Your task to perform on an android device: all mails in gmail Image 0: 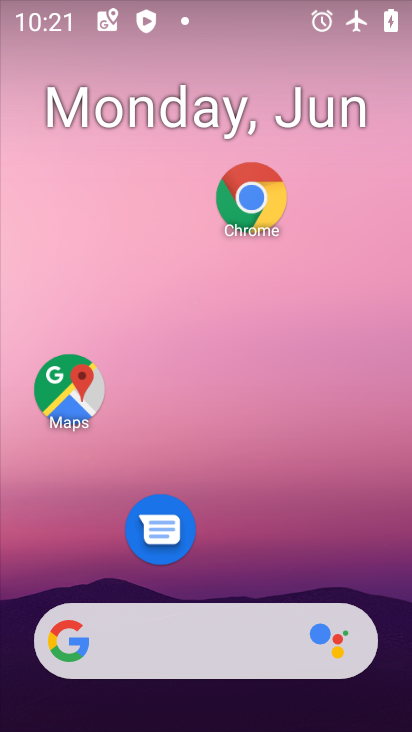
Step 0: drag from (230, 561) to (244, 92)
Your task to perform on an android device: all mails in gmail Image 1: 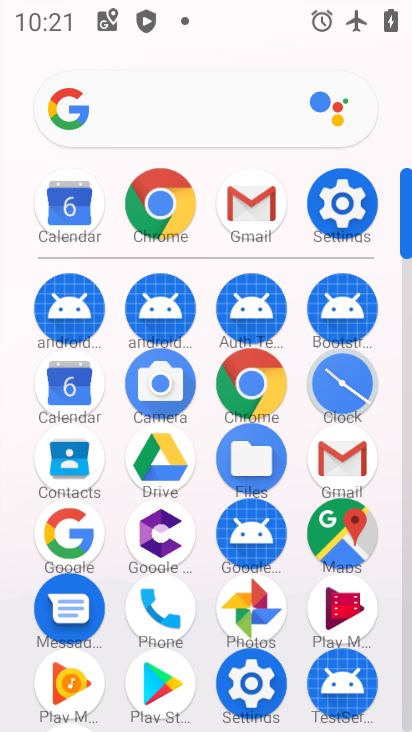
Step 1: click (248, 186)
Your task to perform on an android device: all mails in gmail Image 2: 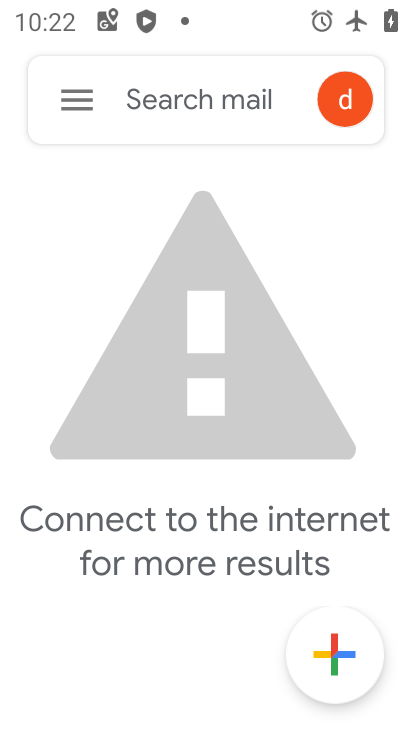
Step 2: click (76, 94)
Your task to perform on an android device: all mails in gmail Image 3: 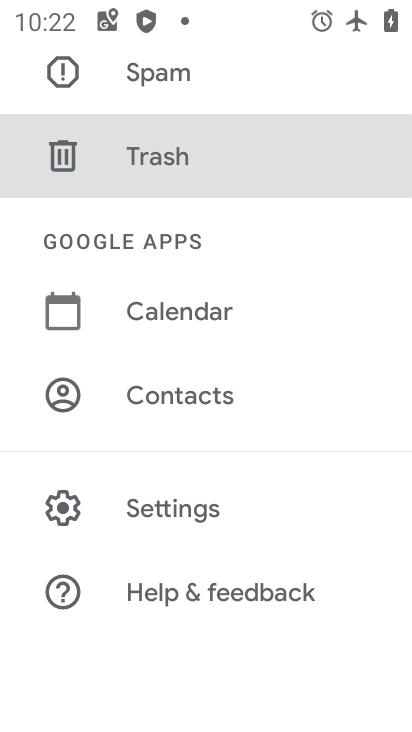
Step 3: drag from (210, 220) to (234, 600)
Your task to perform on an android device: all mails in gmail Image 4: 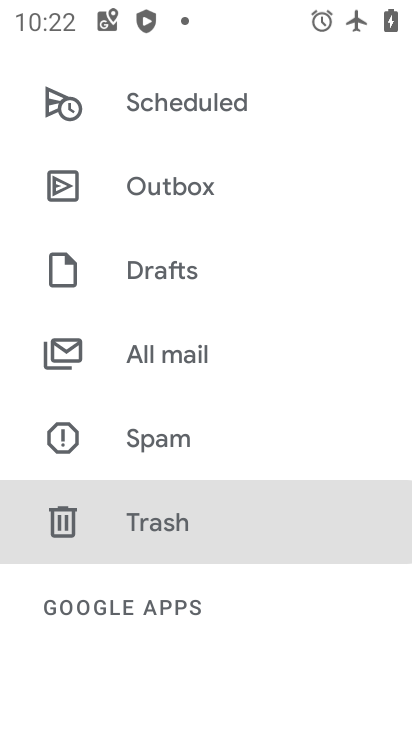
Step 4: click (175, 367)
Your task to perform on an android device: all mails in gmail Image 5: 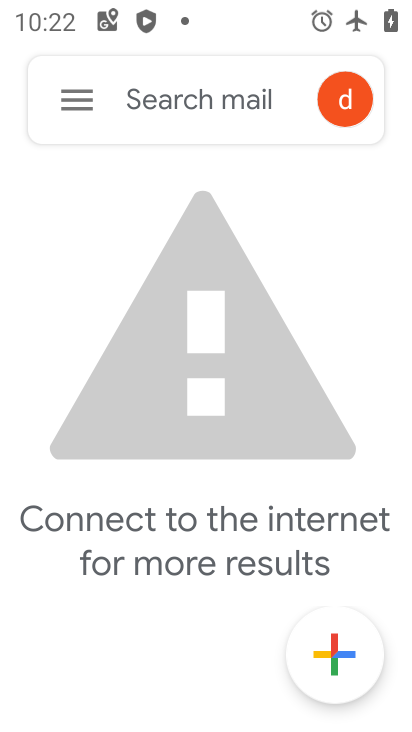
Step 5: task complete